Your task to perform on an android device: turn on sleep mode Image 0: 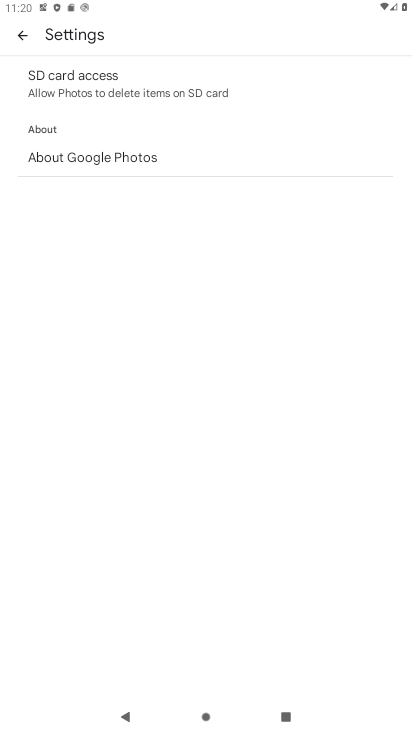
Step 0: press home button
Your task to perform on an android device: turn on sleep mode Image 1: 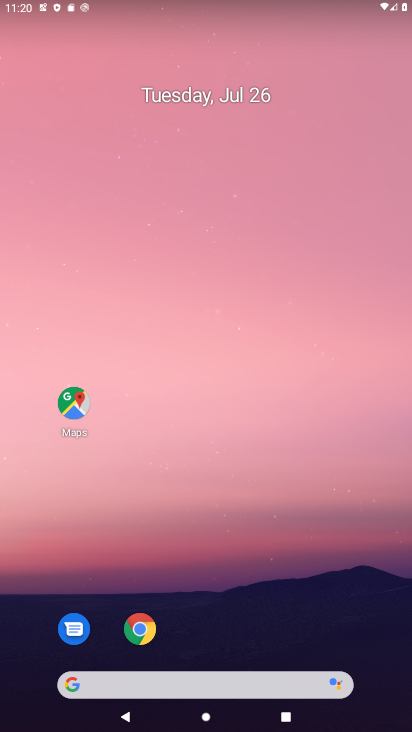
Step 1: drag from (270, 650) to (279, 187)
Your task to perform on an android device: turn on sleep mode Image 2: 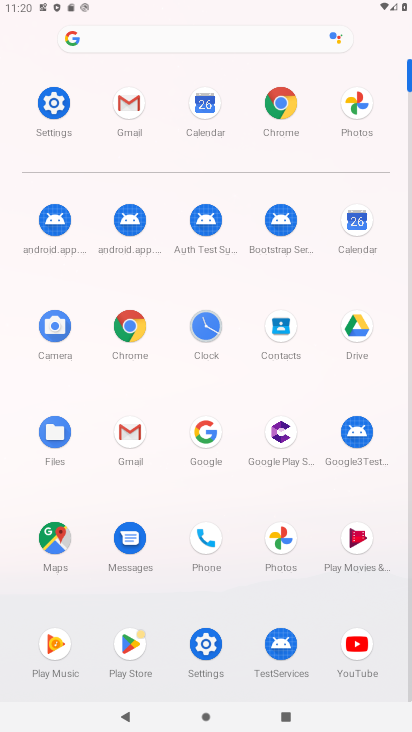
Step 2: click (50, 107)
Your task to perform on an android device: turn on sleep mode Image 3: 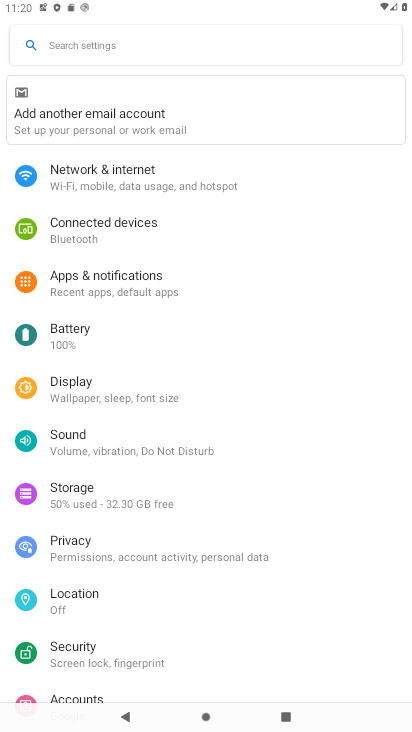
Step 3: click (168, 403)
Your task to perform on an android device: turn on sleep mode Image 4: 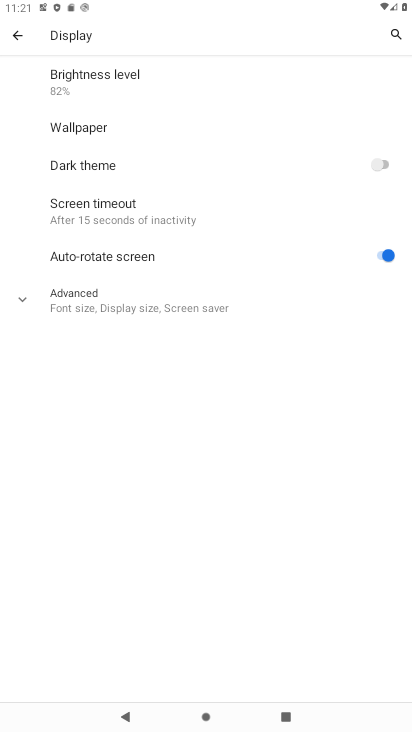
Step 4: click (151, 296)
Your task to perform on an android device: turn on sleep mode Image 5: 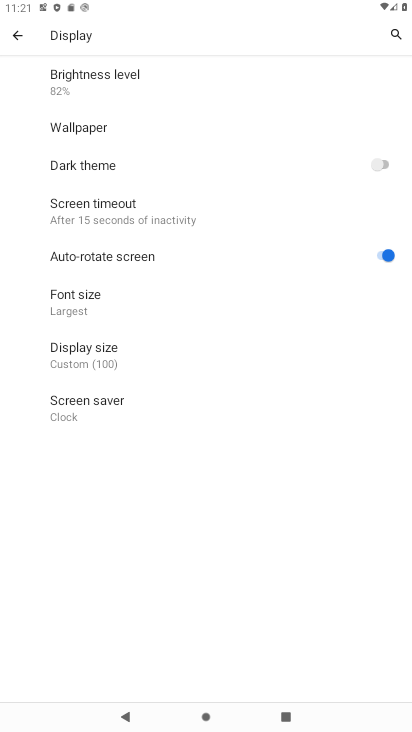
Step 5: task complete